Your task to perform on an android device: remove spam from my inbox in the gmail app Image 0: 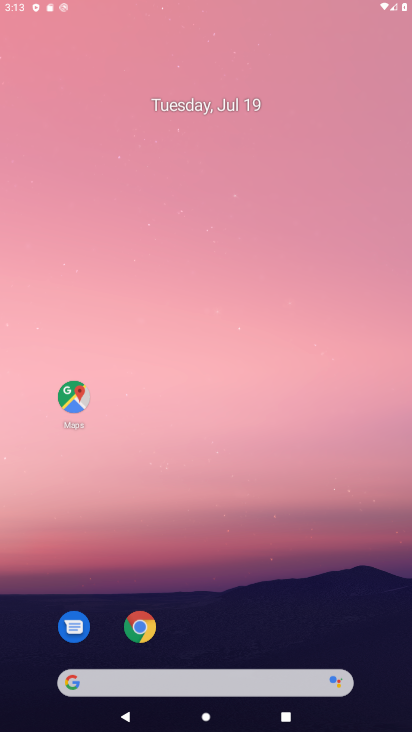
Step 0: press home button
Your task to perform on an android device: remove spam from my inbox in the gmail app Image 1: 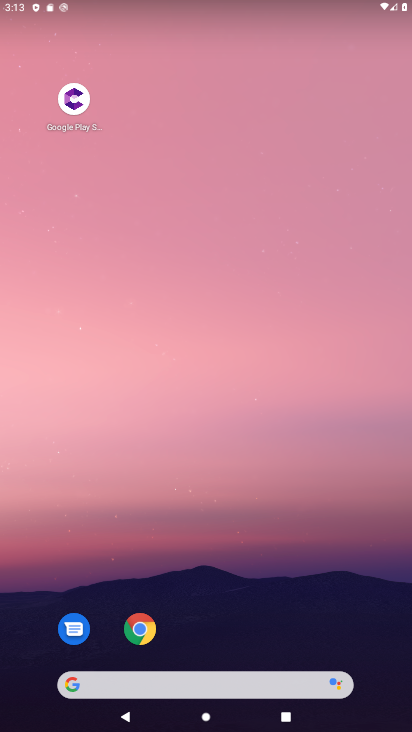
Step 1: drag from (236, 666) to (239, 111)
Your task to perform on an android device: remove spam from my inbox in the gmail app Image 2: 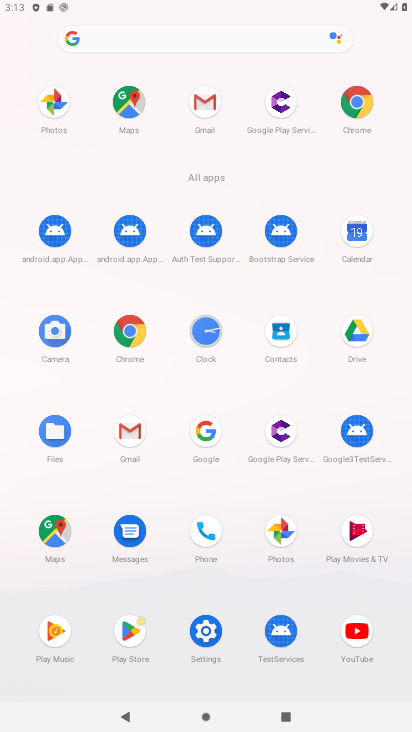
Step 2: click (139, 438)
Your task to perform on an android device: remove spam from my inbox in the gmail app Image 3: 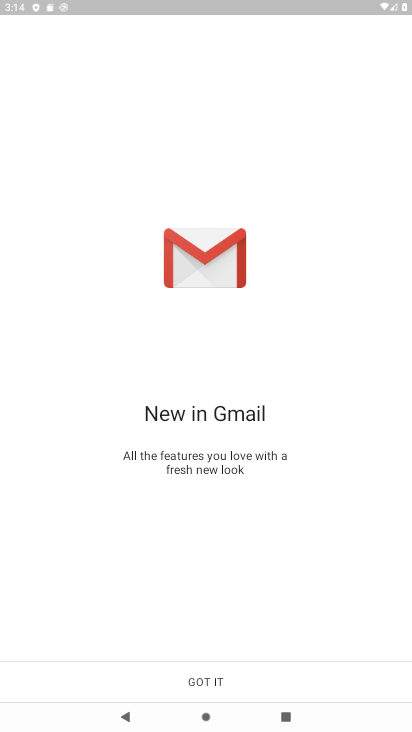
Step 3: click (222, 685)
Your task to perform on an android device: remove spam from my inbox in the gmail app Image 4: 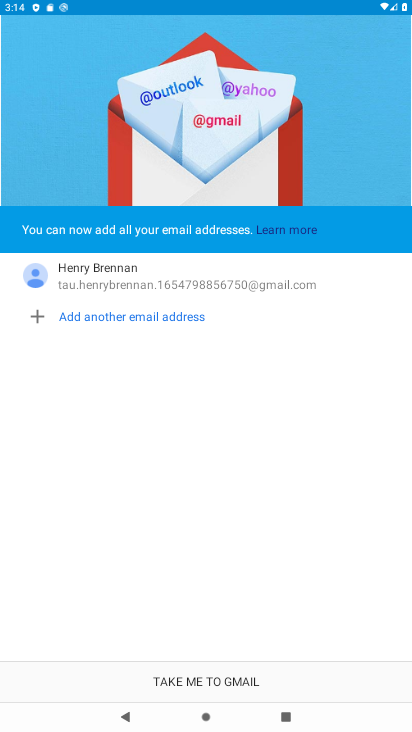
Step 4: click (223, 682)
Your task to perform on an android device: remove spam from my inbox in the gmail app Image 5: 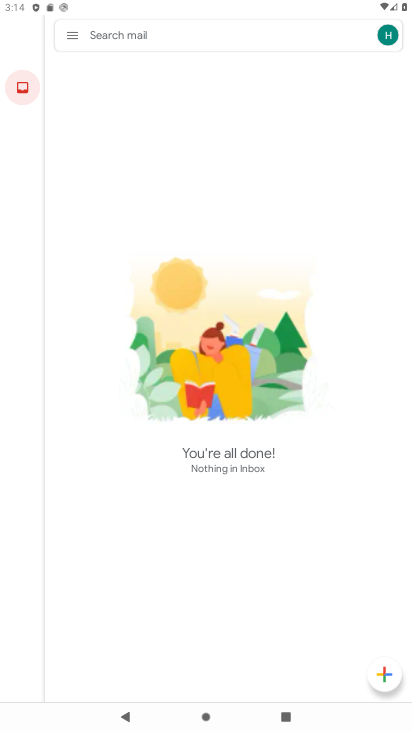
Step 5: click (63, 36)
Your task to perform on an android device: remove spam from my inbox in the gmail app Image 6: 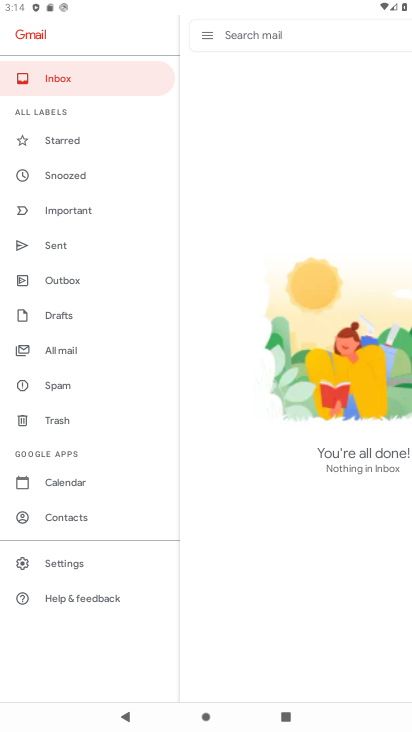
Step 6: click (49, 390)
Your task to perform on an android device: remove spam from my inbox in the gmail app Image 7: 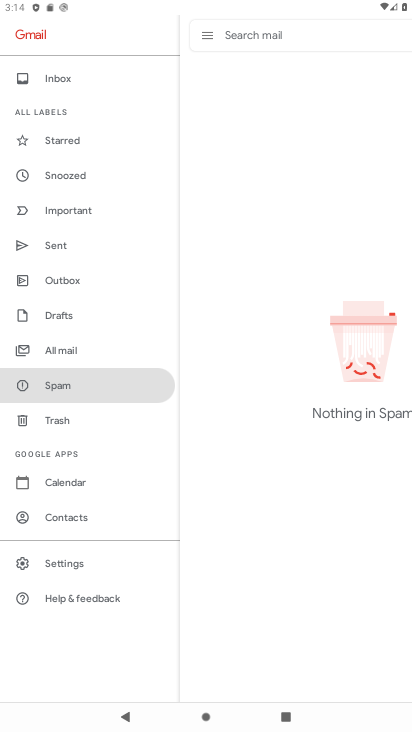
Step 7: task complete